Your task to perform on an android device: move an email to a new category in the gmail app Image 0: 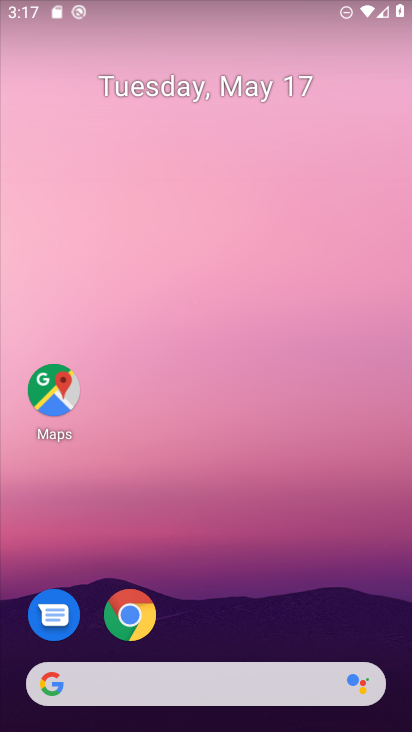
Step 0: drag from (218, 630) to (220, 94)
Your task to perform on an android device: move an email to a new category in the gmail app Image 1: 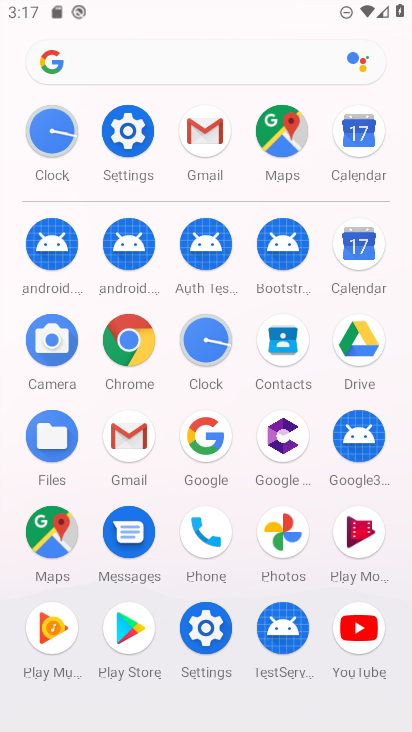
Step 1: click (131, 439)
Your task to perform on an android device: move an email to a new category in the gmail app Image 2: 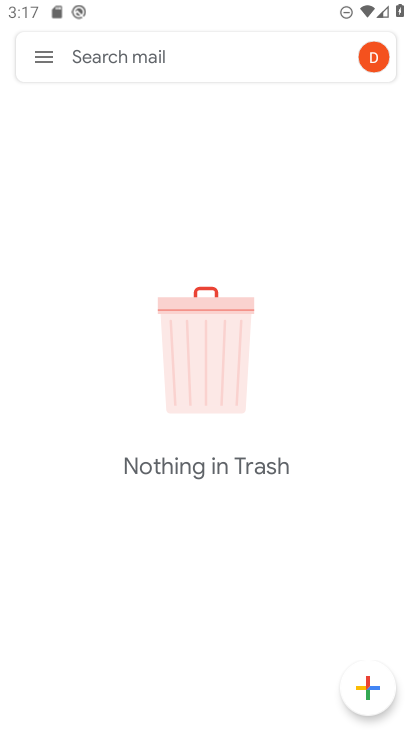
Step 2: click (41, 59)
Your task to perform on an android device: move an email to a new category in the gmail app Image 3: 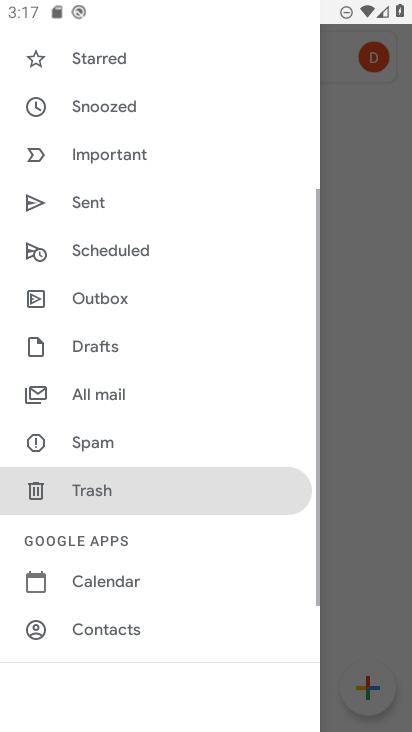
Step 3: drag from (110, 92) to (126, 542)
Your task to perform on an android device: move an email to a new category in the gmail app Image 4: 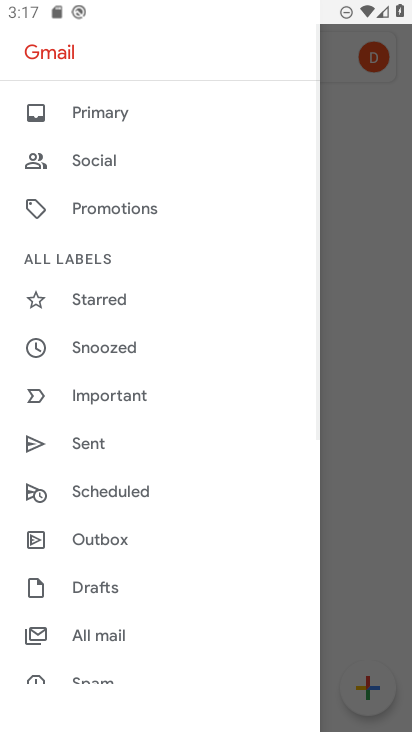
Step 4: click (108, 109)
Your task to perform on an android device: move an email to a new category in the gmail app Image 5: 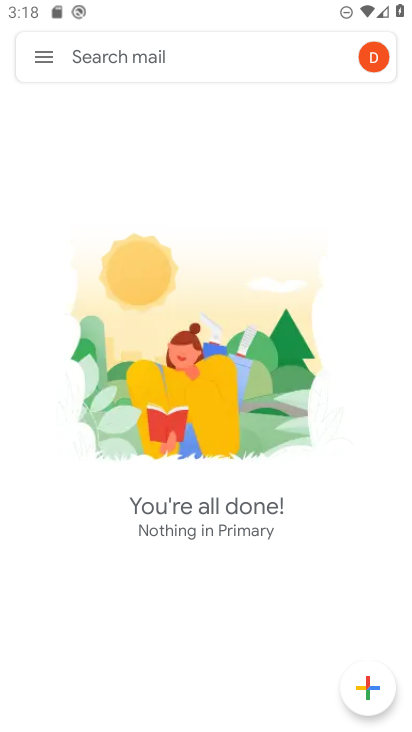
Step 5: task complete